Your task to perform on an android device: turn on priority inbox in the gmail app Image 0: 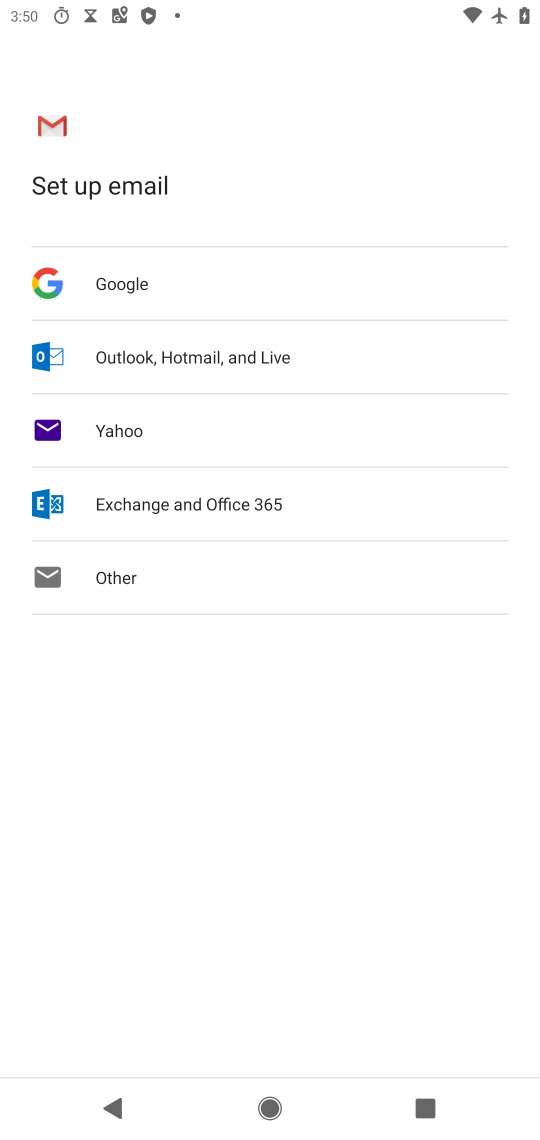
Step 0: press home button
Your task to perform on an android device: turn on priority inbox in the gmail app Image 1: 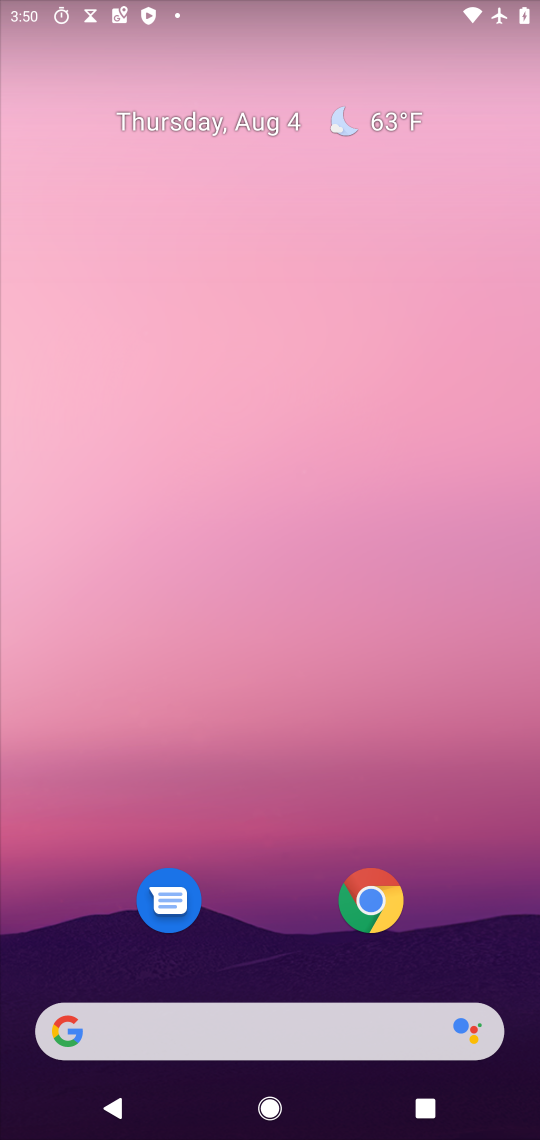
Step 1: drag from (509, 934) to (379, 194)
Your task to perform on an android device: turn on priority inbox in the gmail app Image 2: 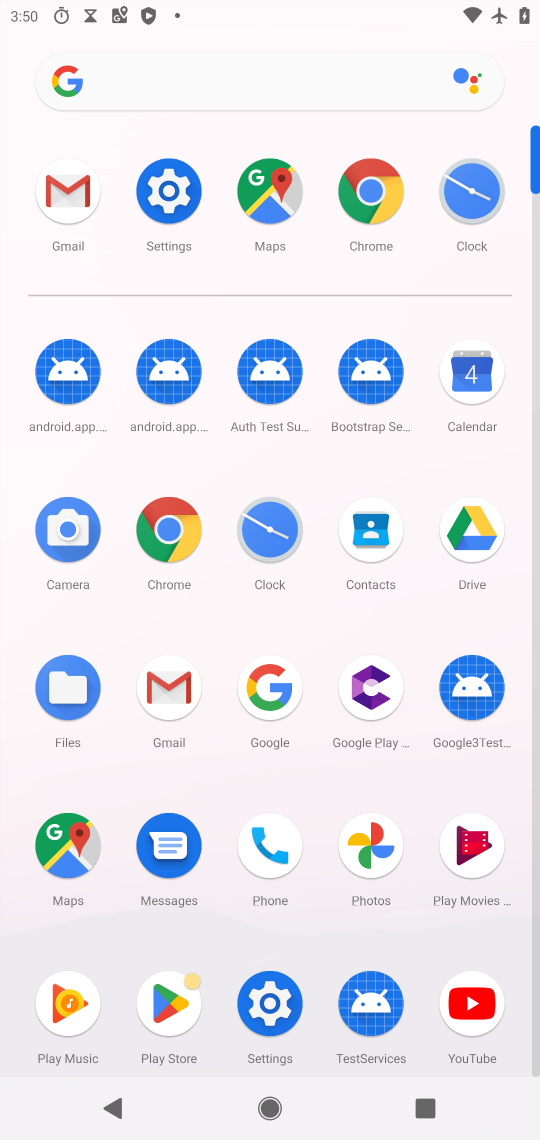
Step 2: click (65, 215)
Your task to perform on an android device: turn on priority inbox in the gmail app Image 3: 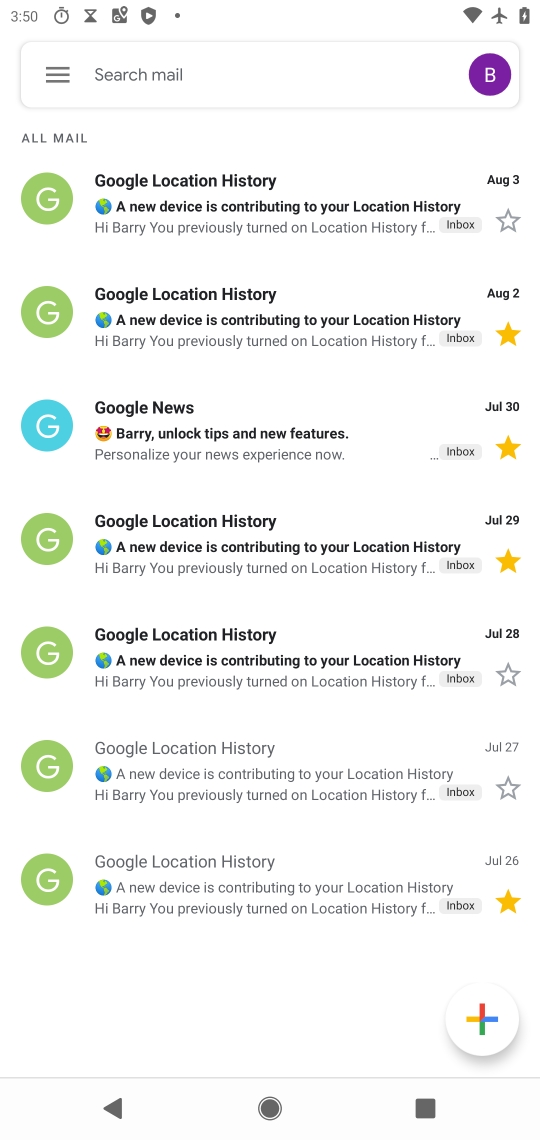
Step 3: click (53, 84)
Your task to perform on an android device: turn on priority inbox in the gmail app Image 4: 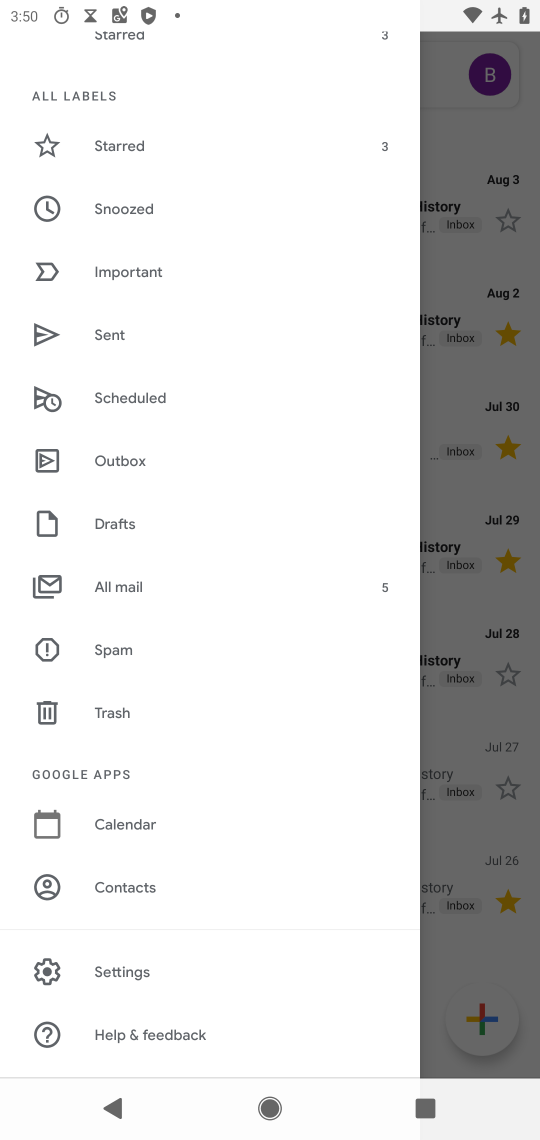
Step 4: click (166, 966)
Your task to perform on an android device: turn on priority inbox in the gmail app Image 5: 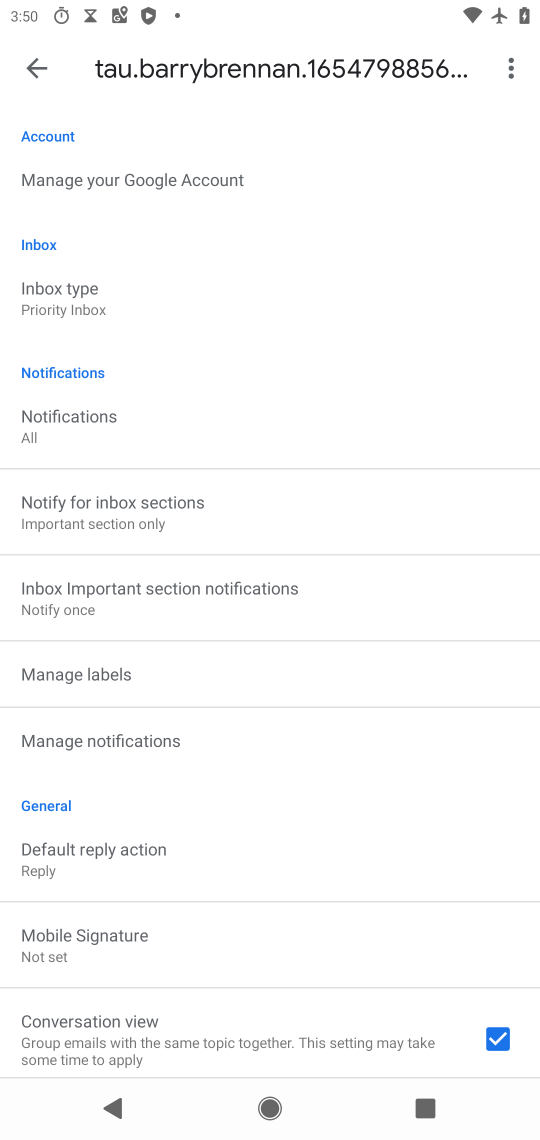
Step 5: click (140, 286)
Your task to perform on an android device: turn on priority inbox in the gmail app Image 6: 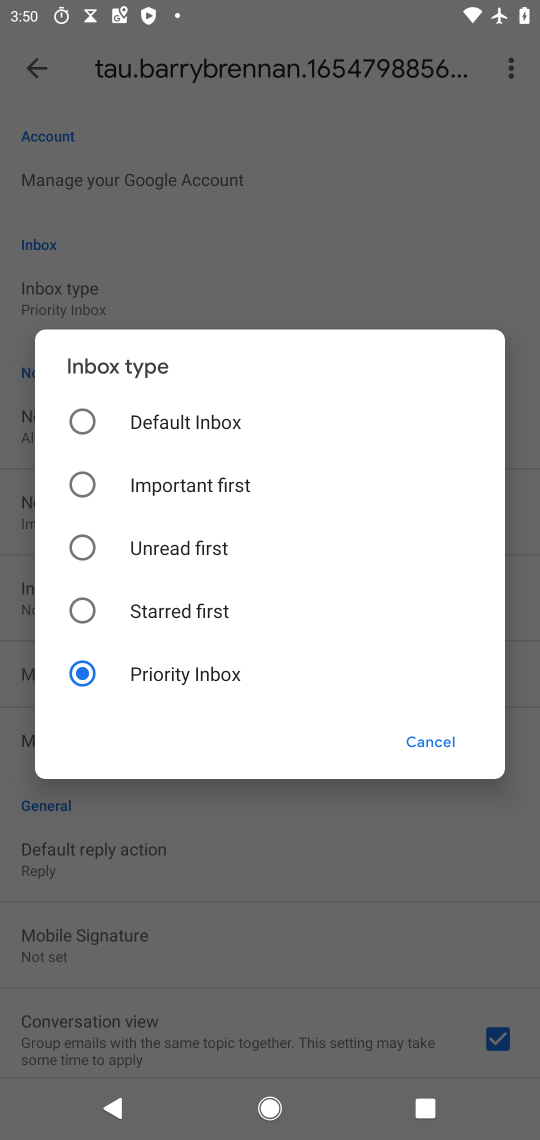
Step 6: task complete